Your task to perform on an android device: open chrome and create a bookmark for the current page Image 0: 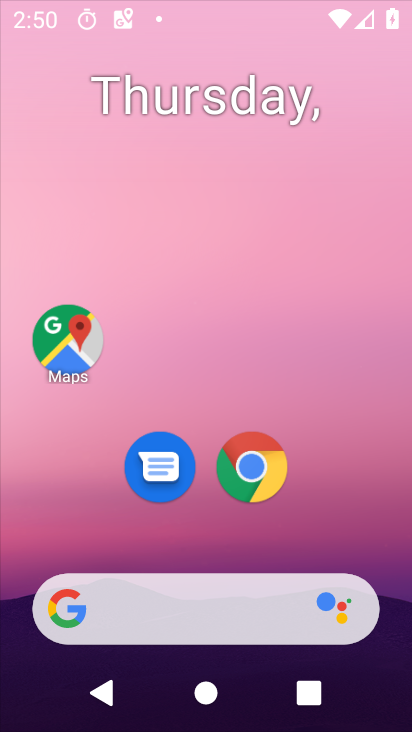
Step 0: click (208, 160)
Your task to perform on an android device: open chrome and create a bookmark for the current page Image 1: 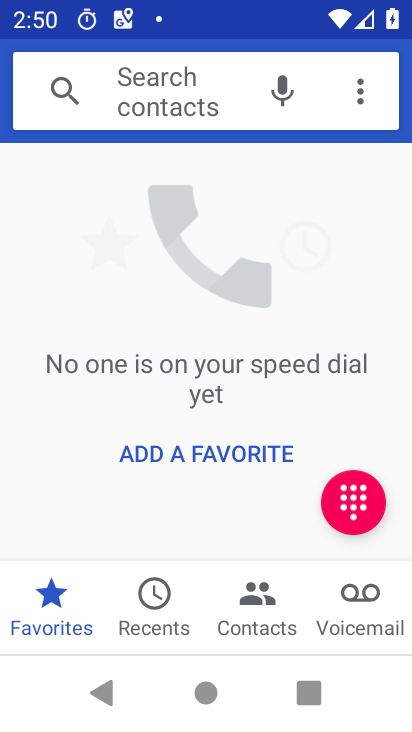
Step 1: press home button
Your task to perform on an android device: open chrome and create a bookmark for the current page Image 2: 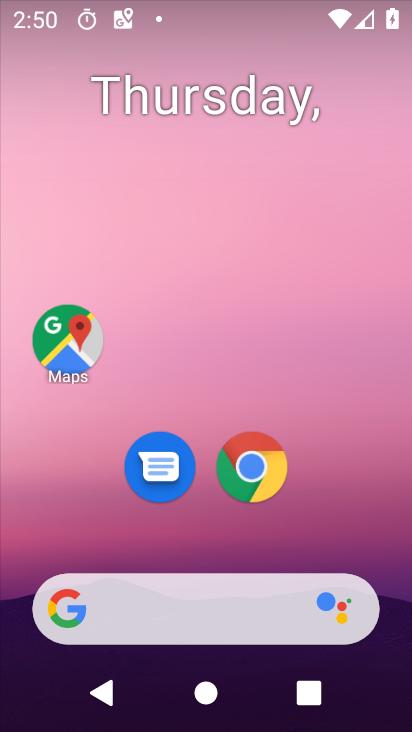
Step 2: drag from (187, 555) to (171, 194)
Your task to perform on an android device: open chrome and create a bookmark for the current page Image 3: 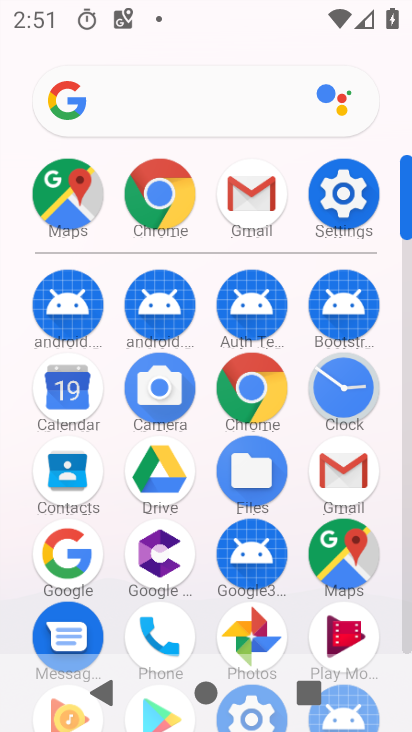
Step 3: click (253, 383)
Your task to perform on an android device: open chrome and create a bookmark for the current page Image 4: 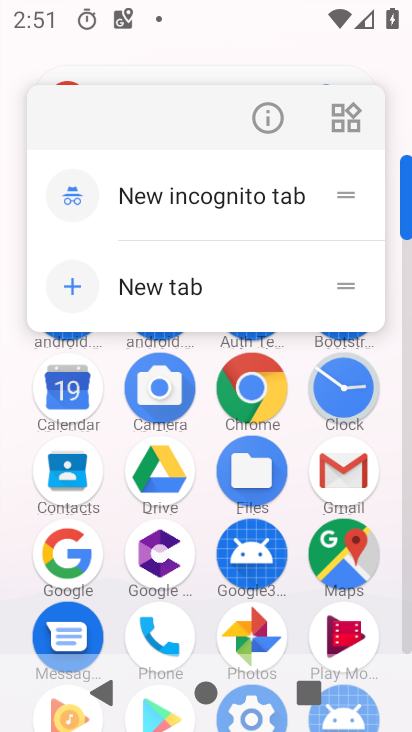
Step 4: click (274, 124)
Your task to perform on an android device: open chrome and create a bookmark for the current page Image 5: 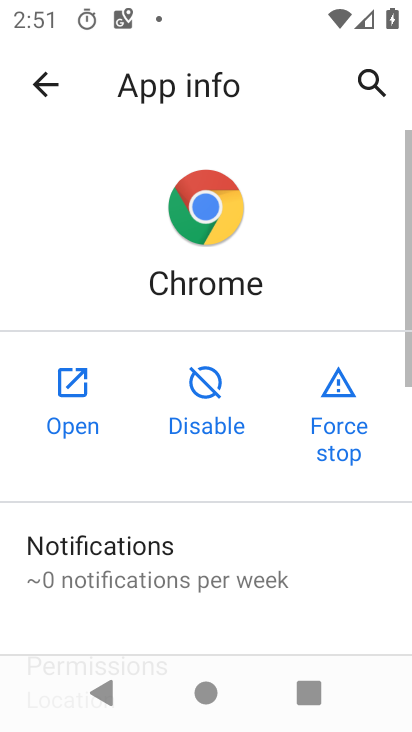
Step 5: click (70, 390)
Your task to perform on an android device: open chrome and create a bookmark for the current page Image 6: 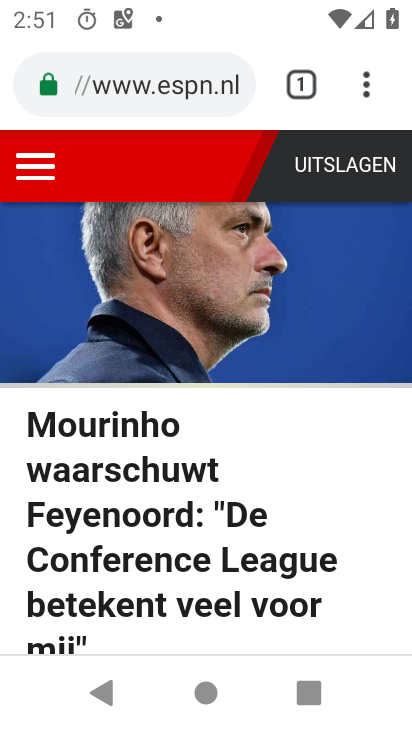
Step 6: drag from (237, 540) to (269, 162)
Your task to perform on an android device: open chrome and create a bookmark for the current page Image 7: 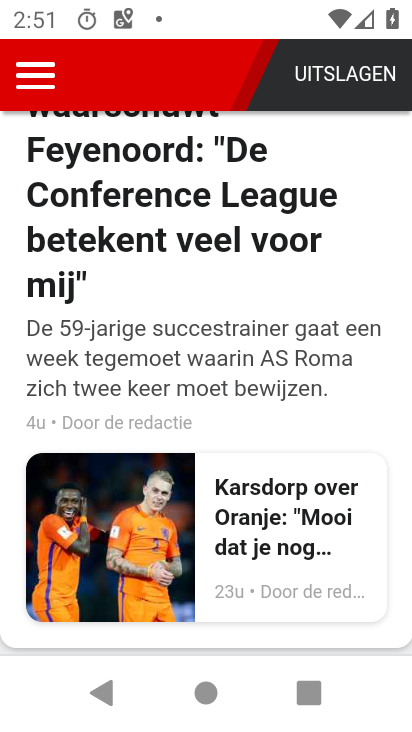
Step 7: drag from (350, 107) to (249, 475)
Your task to perform on an android device: open chrome and create a bookmark for the current page Image 8: 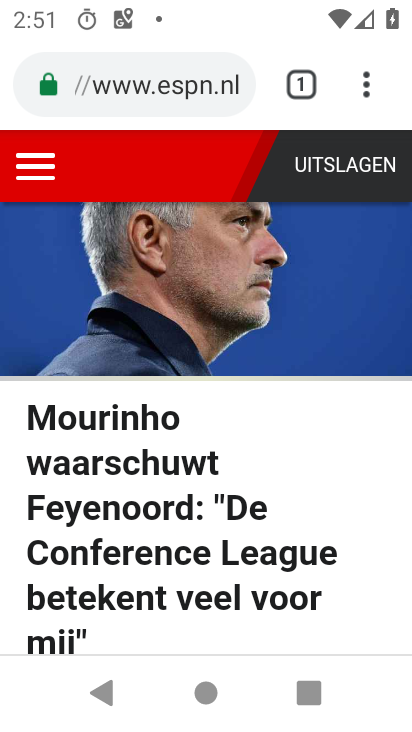
Step 8: click (358, 86)
Your task to perform on an android device: open chrome and create a bookmark for the current page Image 9: 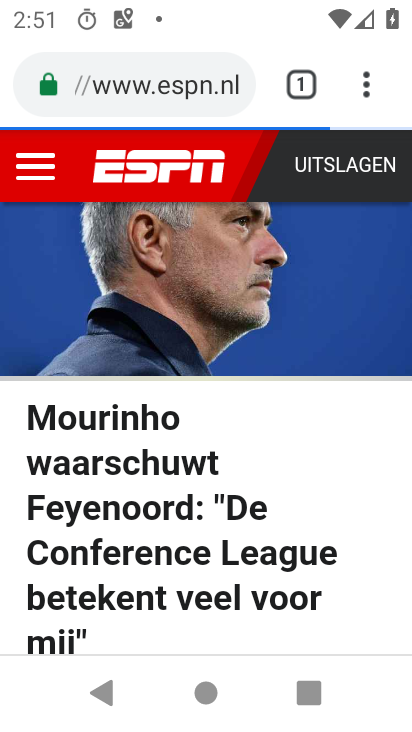
Step 9: click (376, 92)
Your task to perform on an android device: open chrome and create a bookmark for the current page Image 10: 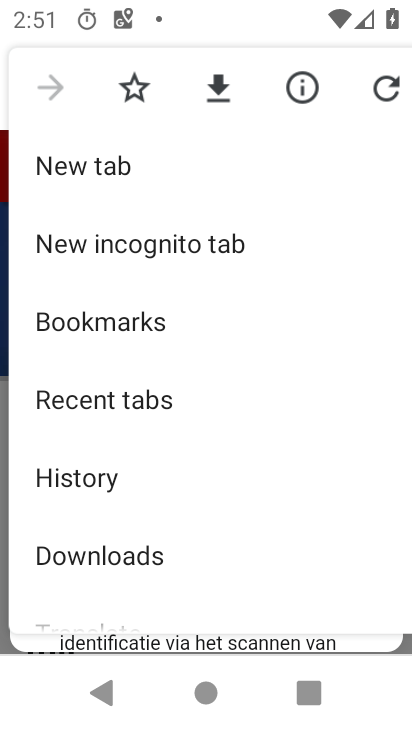
Step 10: drag from (171, 536) to (180, 120)
Your task to perform on an android device: open chrome and create a bookmark for the current page Image 11: 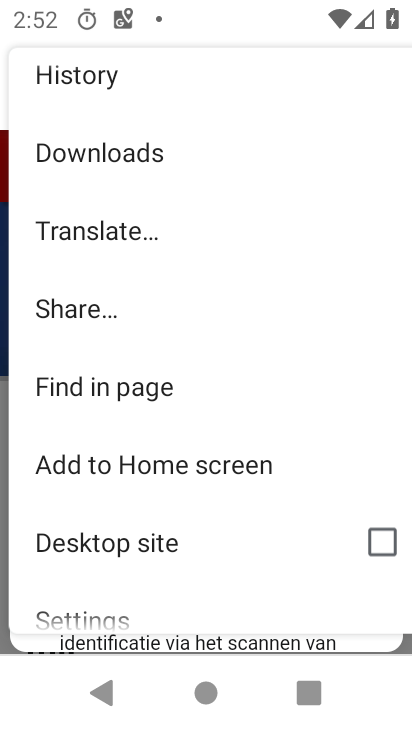
Step 11: drag from (143, 589) to (180, 163)
Your task to perform on an android device: open chrome and create a bookmark for the current page Image 12: 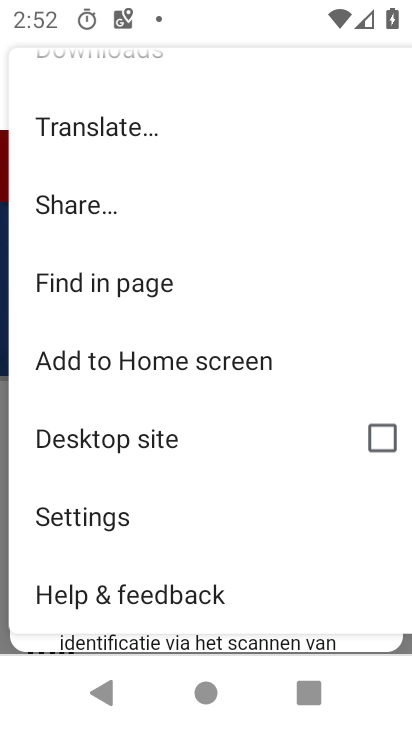
Step 12: drag from (98, 248) to (236, 722)
Your task to perform on an android device: open chrome and create a bookmark for the current page Image 13: 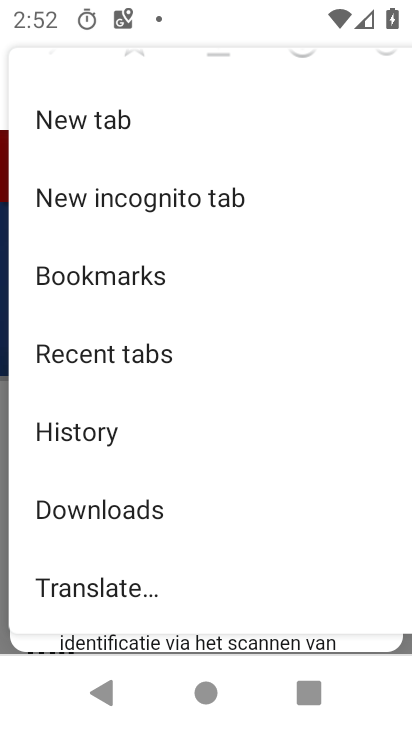
Step 13: drag from (123, 342) to (270, 719)
Your task to perform on an android device: open chrome and create a bookmark for the current page Image 14: 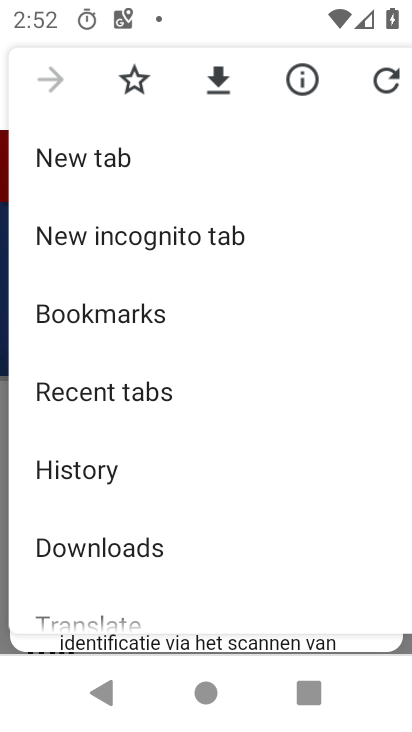
Step 14: click (142, 85)
Your task to perform on an android device: open chrome and create a bookmark for the current page Image 15: 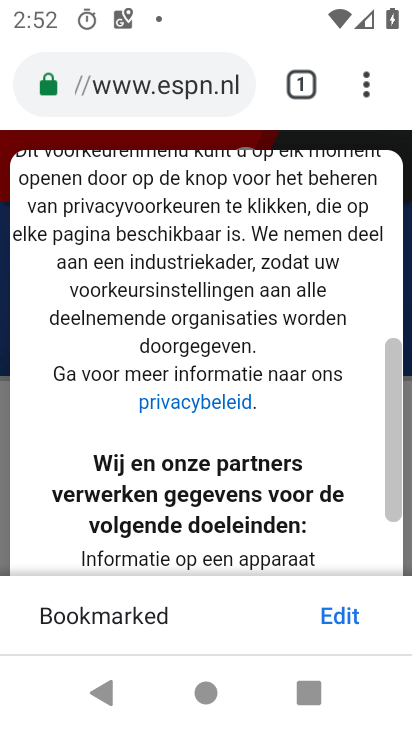
Step 15: task complete